Your task to perform on an android device: turn off sleep mode Image 0: 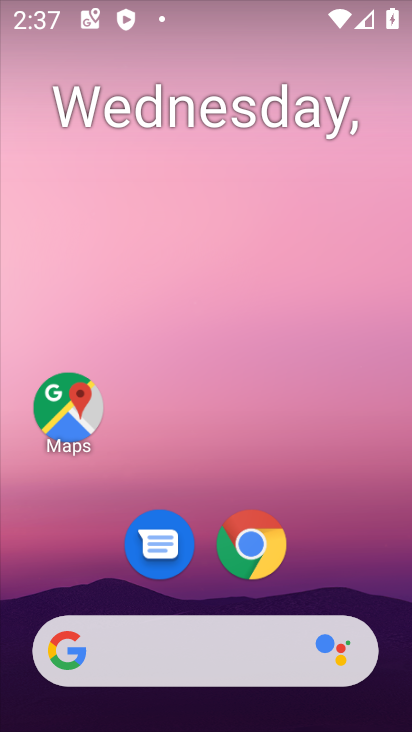
Step 0: drag from (339, 332) to (330, 113)
Your task to perform on an android device: turn off sleep mode Image 1: 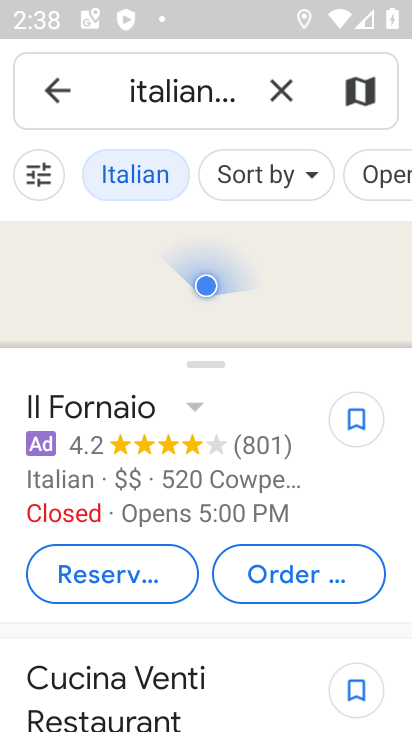
Step 1: press home button
Your task to perform on an android device: turn off sleep mode Image 2: 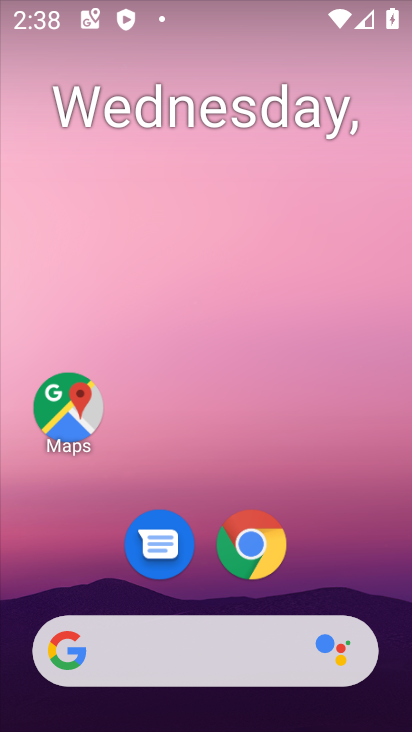
Step 2: drag from (356, 576) to (362, 137)
Your task to perform on an android device: turn off sleep mode Image 3: 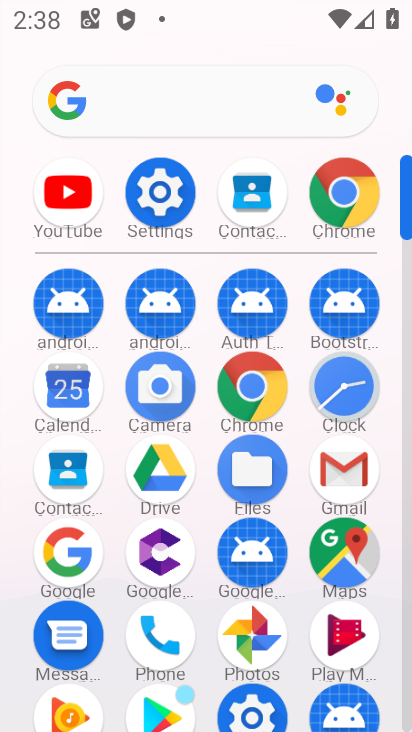
Step 3: click (142, 194)
Your task to perform on an android device: turn off sleep mode Image 4: 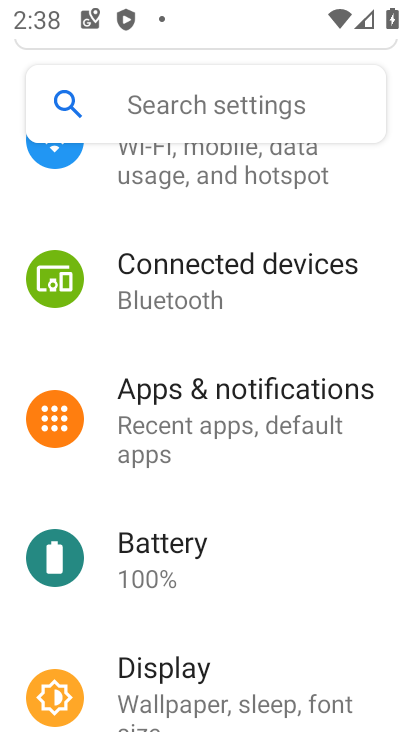
Step 4: click (237, 102)
Your task to perform on an android device: turn off sleep mode Image 5: 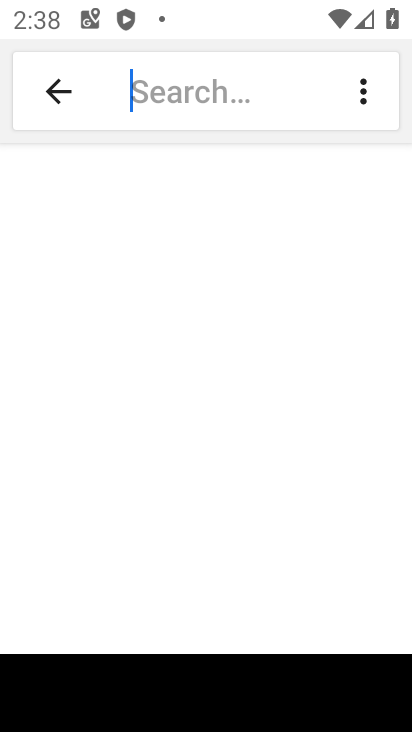
Step 5: type "sleep mode"
Your task to perform on an android device: turn off sleep mode Image 6: 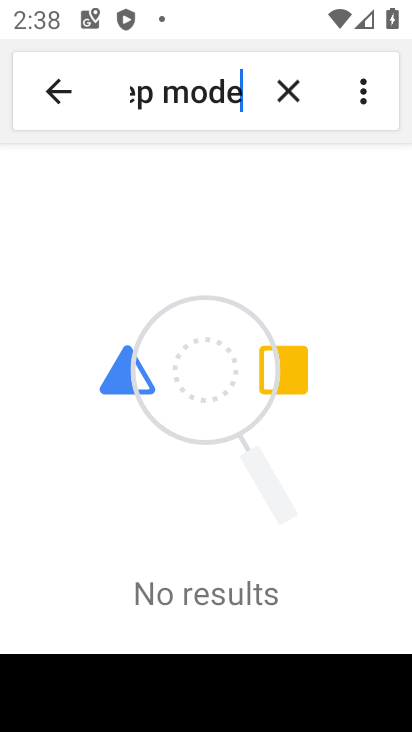
Step 6: task complete